Your task to perform on an android device: Do I have any events this weekend? Image 0: 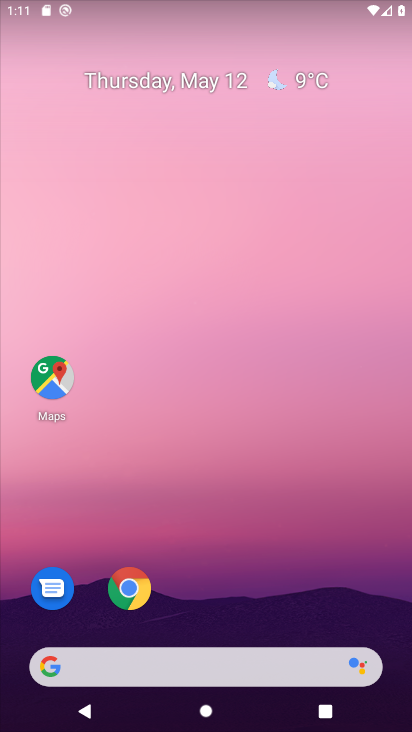
Step 0: drag from (329, 562) to (297, 41)
Your task to perform on an android device: Do I have any events this weekend? Image 1: 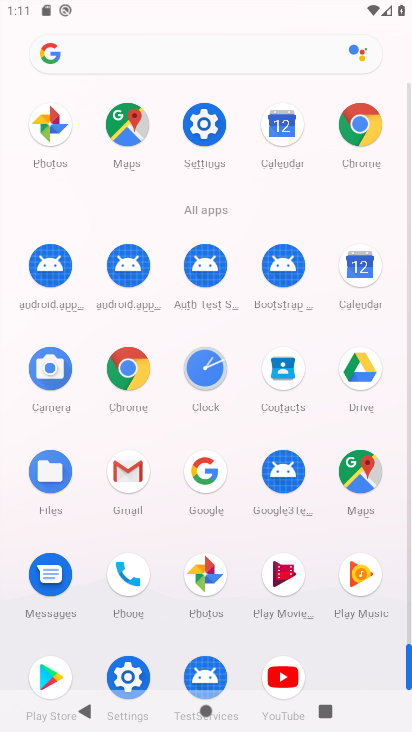
Step 1: click (356, 279)
Your task to perform on an android device: Do I have any events this weekend? Image 2: 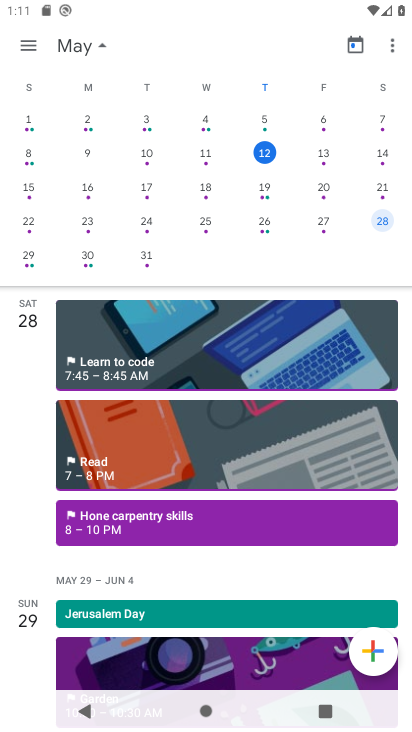
Step 2: click (323, 161)
Your task to perform on an android device: Do I have any events this weekend? Image 3: 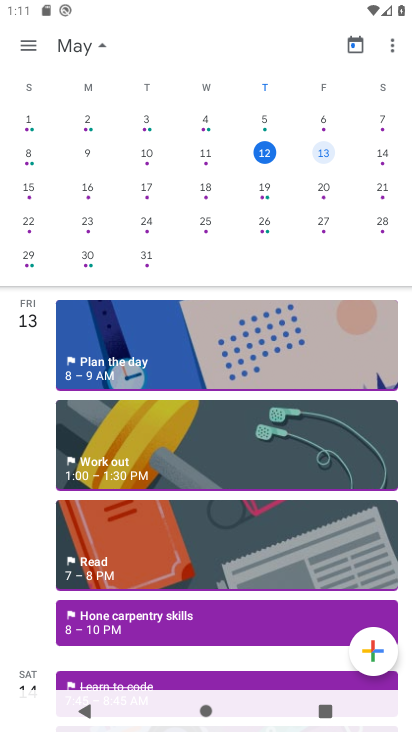
Step 3: task complete